Your task to perform on an android device: turn off wifi Image 0: 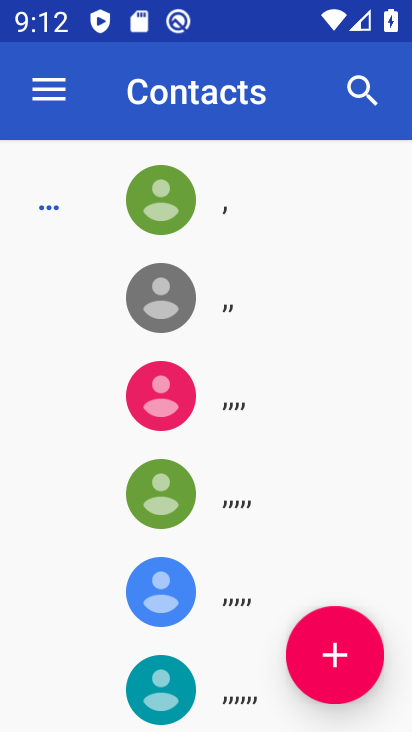
Step 0: press home button
Your task to perform on an android device: turn off wifi Image 1: 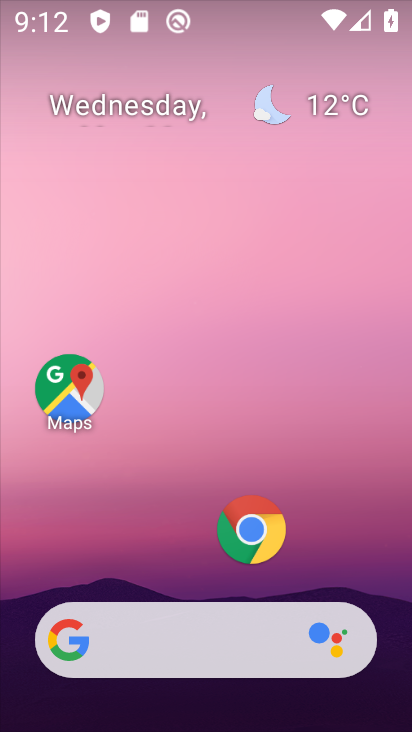
Step 1: drag from (227, 549) to (256, 265)
Your task to perform on an android device: turn off wifi Image 2: 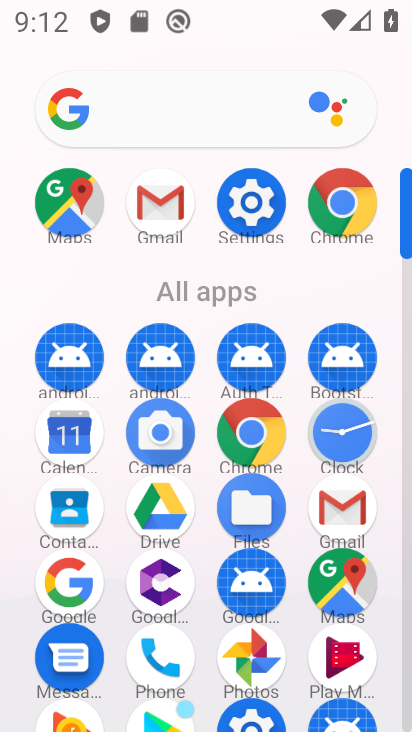
Step 2: click (253, 209)
Your task to perform on an android device: turn off wifi Image 3: 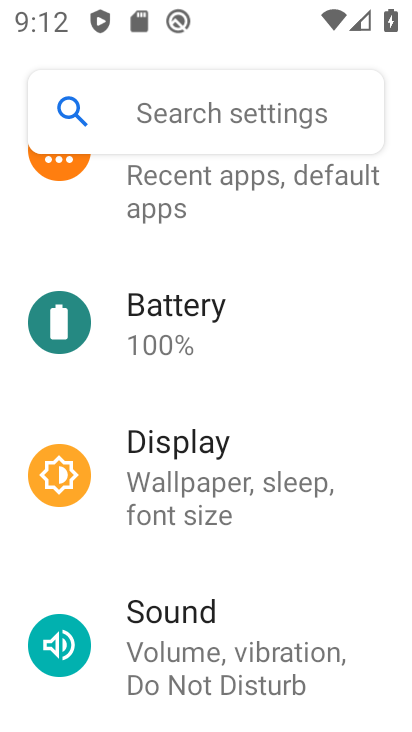
Step 3: drag from (256, 226) to (265, 589)
Your task to perform on an android device: turn off wifi Image 4: 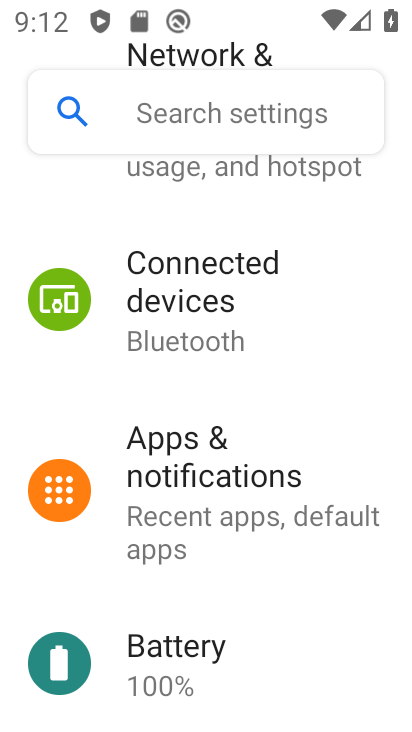
Step 4: drag from (260, 248) to (271, 578)
Your task to perform on an android device: turn off wifi Image 5: 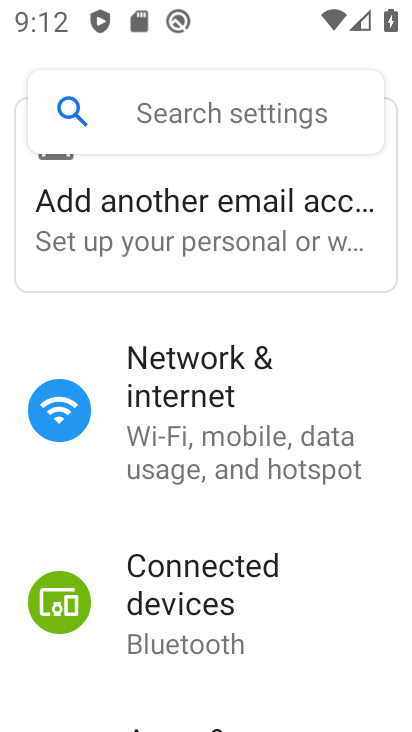
Step 5: click (242, 423)
Your task to perform on an android device: turn off wifi Image 6: 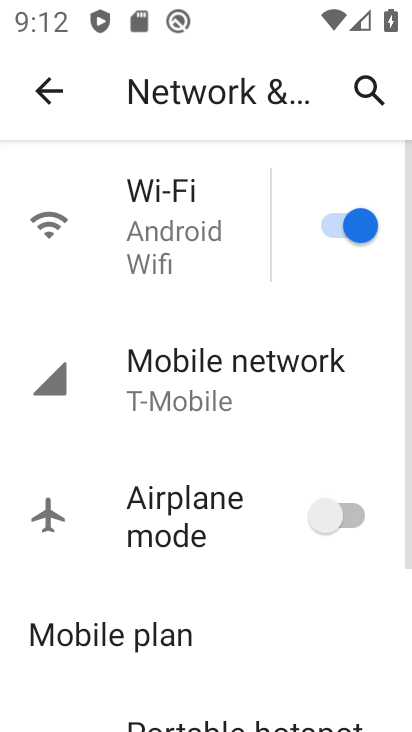
Step 6: click (336, 226)
Your task to perform on an android device: turn off wifi Image 7: 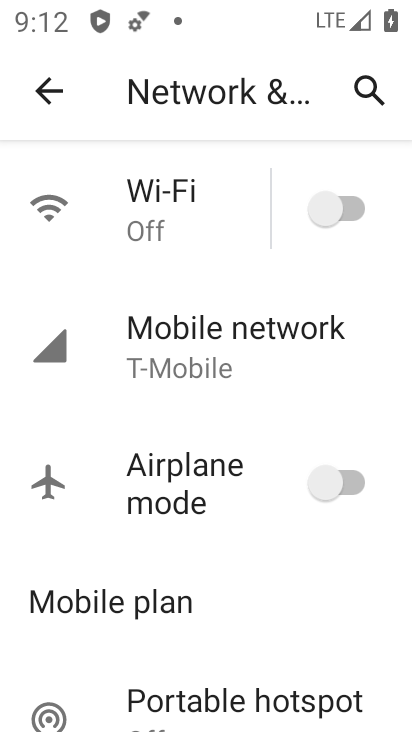
Step 7: task complete